Your task to perform on an android device: check data usage Image 0: 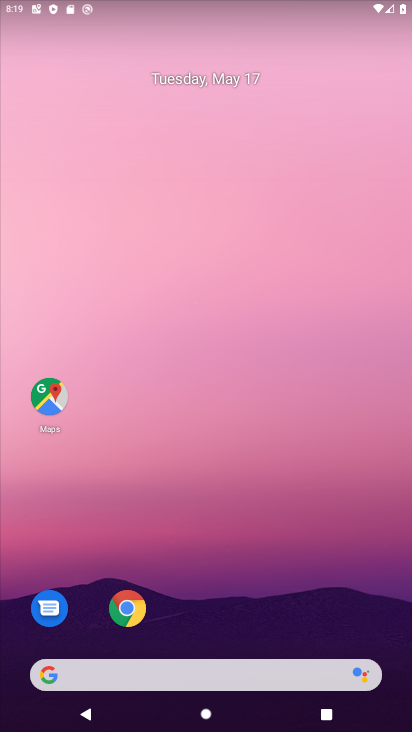
Step 0: drag from (265, 12) to (254, 384)
Your task to perform on an android device: check data usage Image 1: 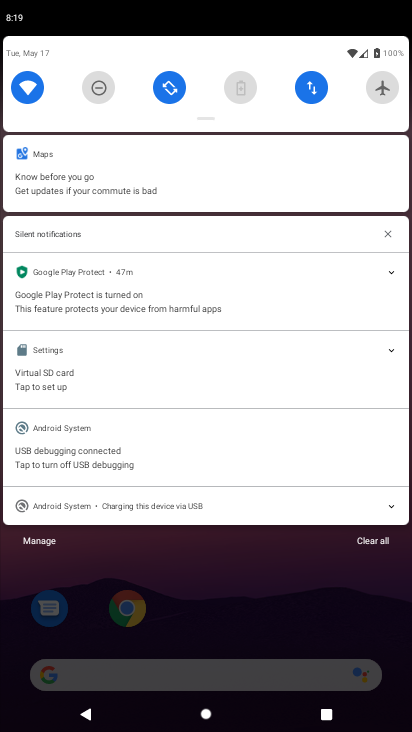
Step 1: click (310, 79)
Your task to perform on an android device: check data usage Image 2: 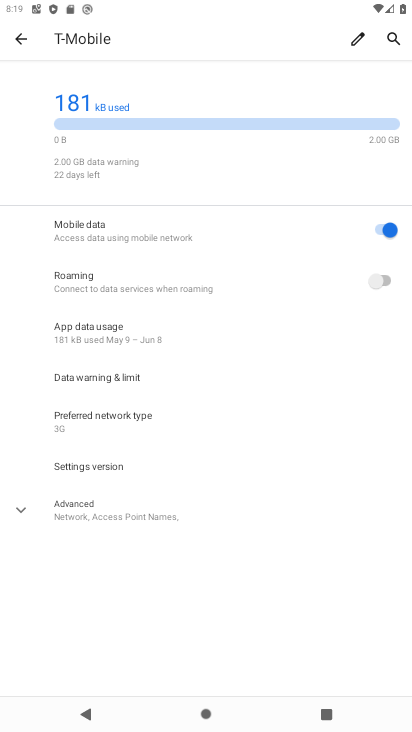
Step 2: task complete